Your task to perform on an android device: make emails show in primary in the gmail app Image 0: 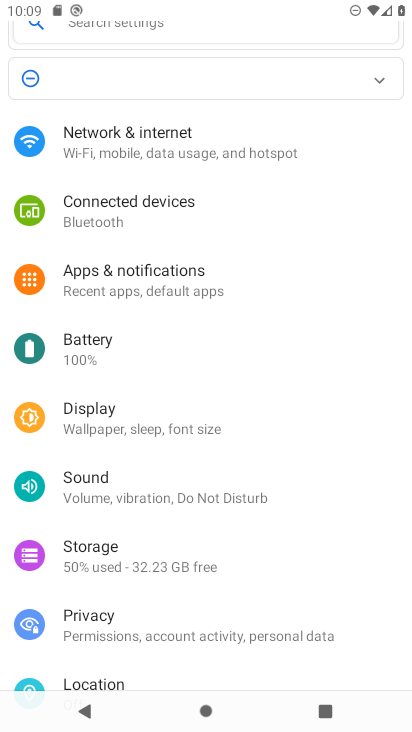
Step 0: press home button
Your task to perform on an android device: make emails show in primary in the gmail app Image 1: 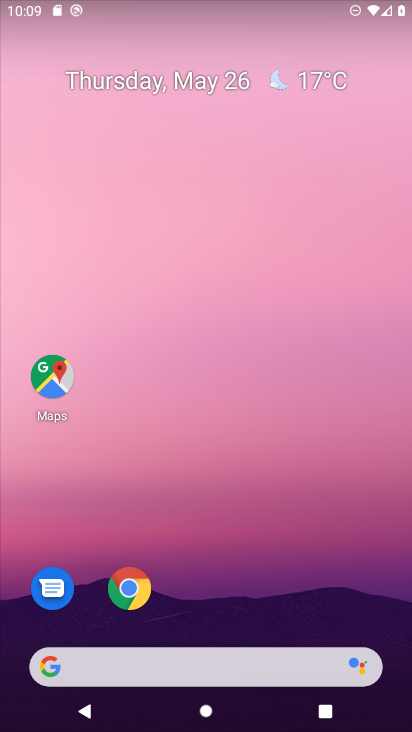
Step 1: drag from (393, 632) to (296, 140)
Your task to perform on an android device: make emails show in primary in the gmail app Image 2: 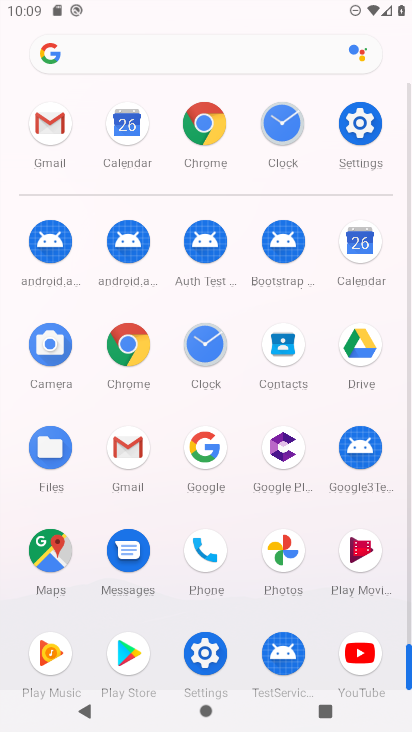
Step 2: click (127, 449)
Your task to perform on an android device: make emails show in primary in the gmail app Image 3: 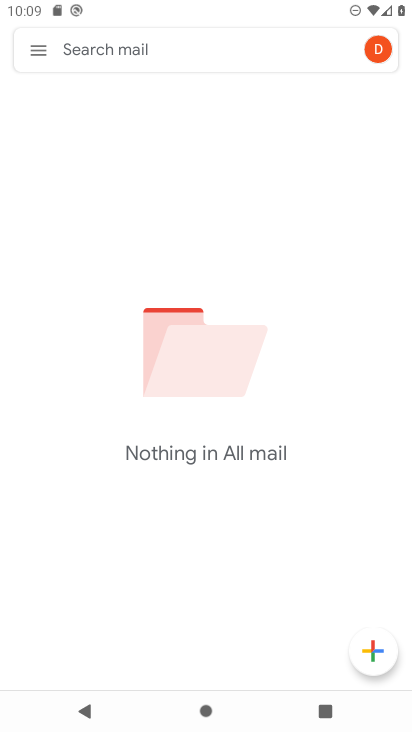
Step 3: click (35, 49)
Your task to perform on an android device: make emails show in primary in the gmail app Image 4: 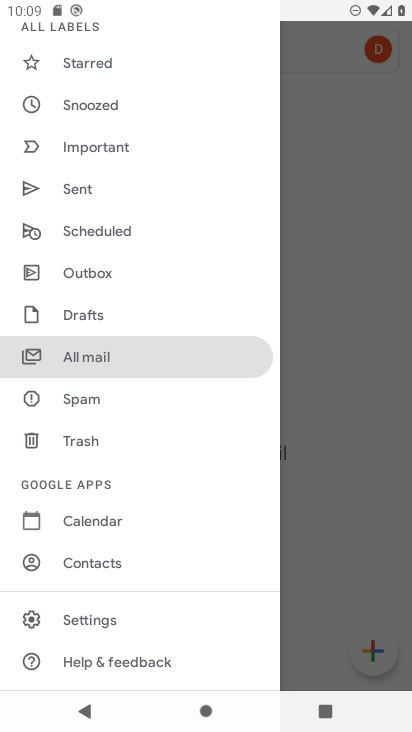
Step 4: click (101, 621)
Your task to perform on an android device: make emails show in primary in the gmail app Image 5: 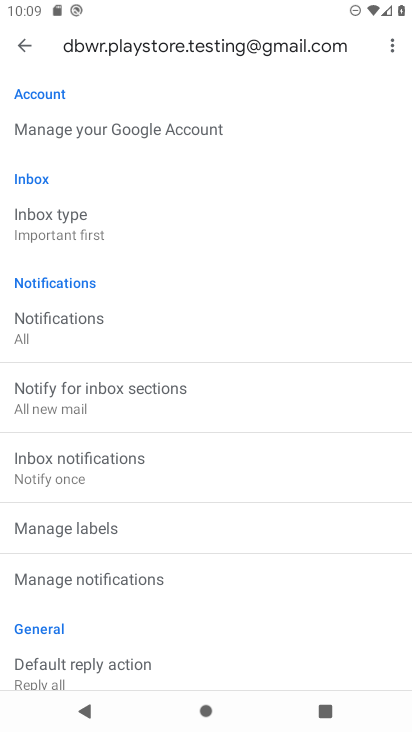
Step 5: click (39, 221)
Your task to perform on an android device: make emails show in primary in the gmail app Image 6: 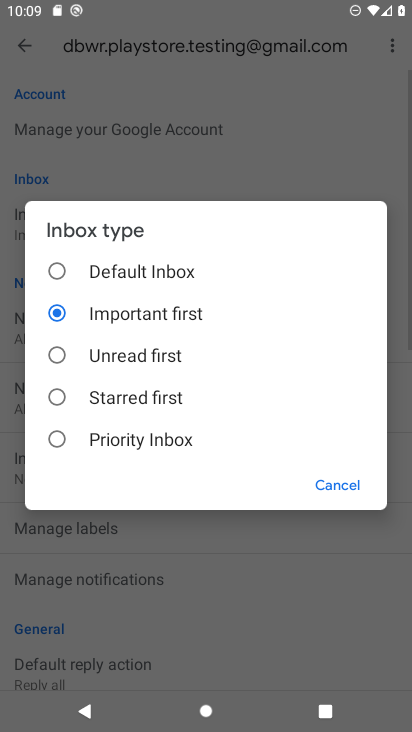
Step 6: click (57, 272)
Your task to perform on an android device: make emails show in primary in the gmail app Image 7: 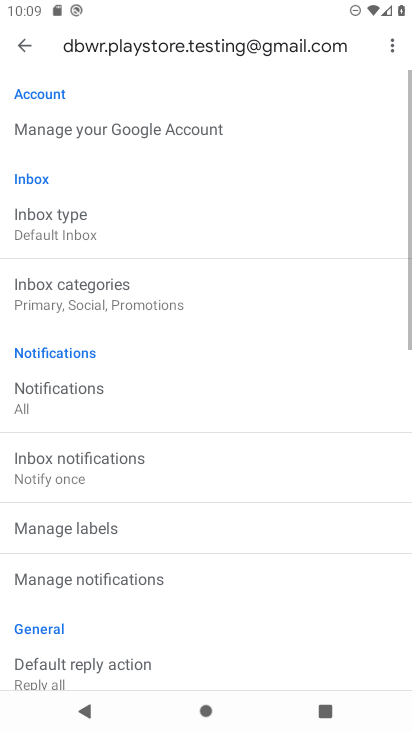
Step 7: click (58, 295)
Your task to perform on an android device: make emails show in primary in the gmail app Image 8: 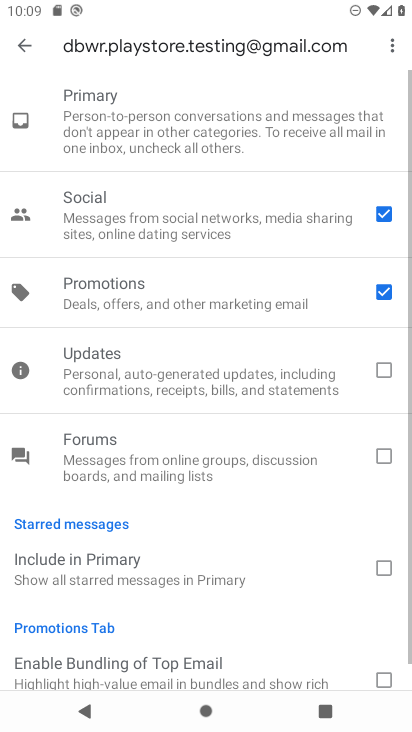
Step 8: click (389, 292)
Your task to perform on an android device: make emails show in primary in the gmail app Image 9: 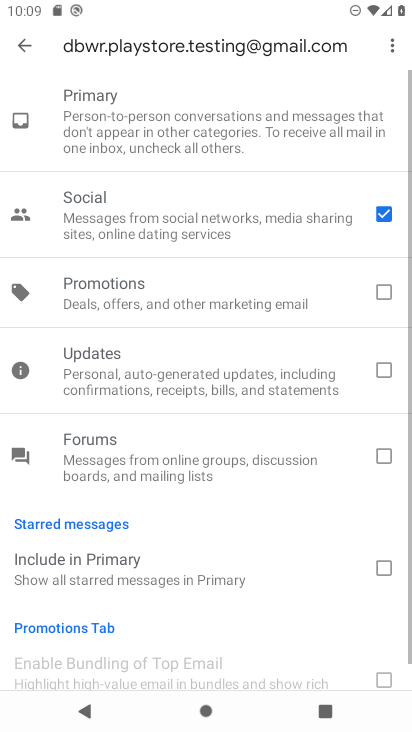
Step 9: click (381, 204)
Your task to perform on an android device: make emails show in primary in the gmail app Image 10: 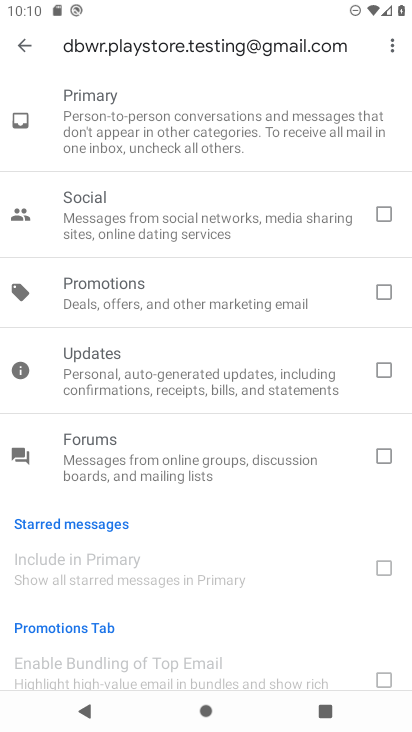
Step 10: task complete